Your task to perform on an android device: Open display settings Image 0: 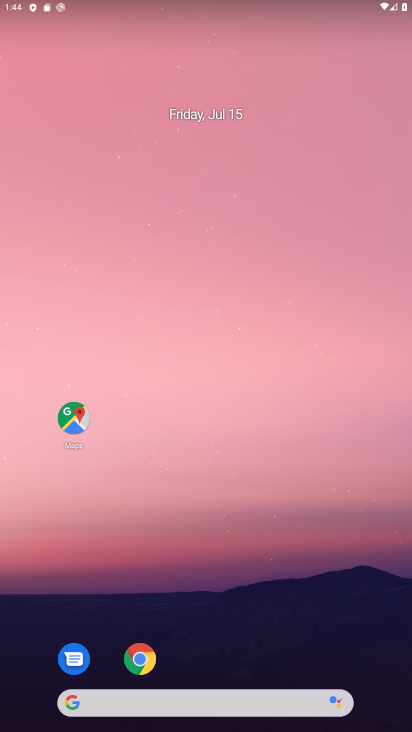
Step 0: drag from (186, 634) to (186, 94)
Your task to perform on an android device: Open display settings Image 1: 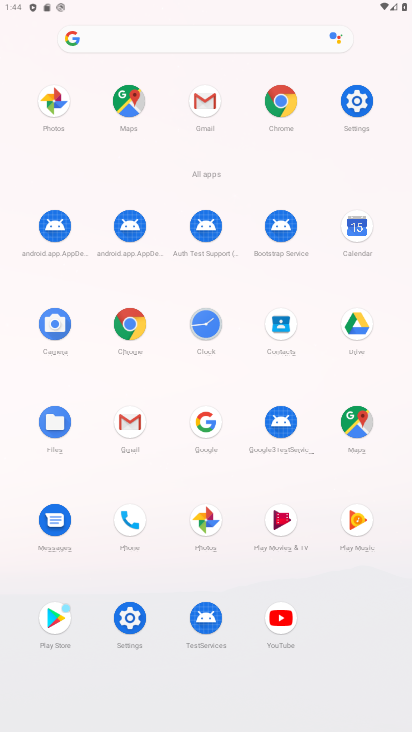
Step 1: click (353, 110)
Your task to perform on an android device: Open display settings Image 2: 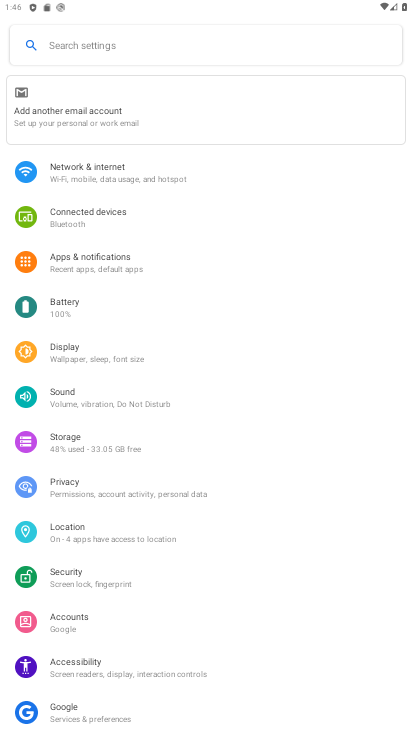
Step 2: click (77, 357)
Your task to perform on an android device: Open display settings Image 3: 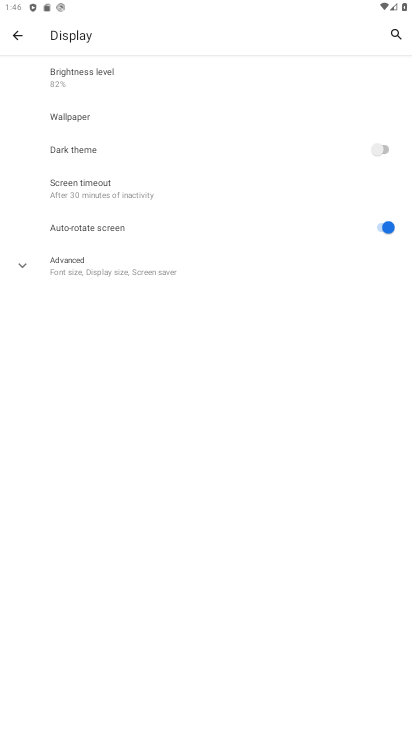
Step 3: click (130, 270)
Your task to perform on an android device: Open display settings Image 4: 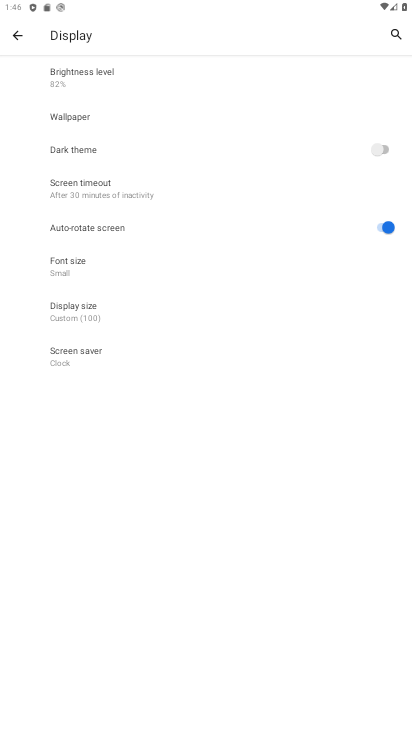
Step 4: task complete